Your task to perform on an android device: Open calendar and show me the third week of next month Image 0: 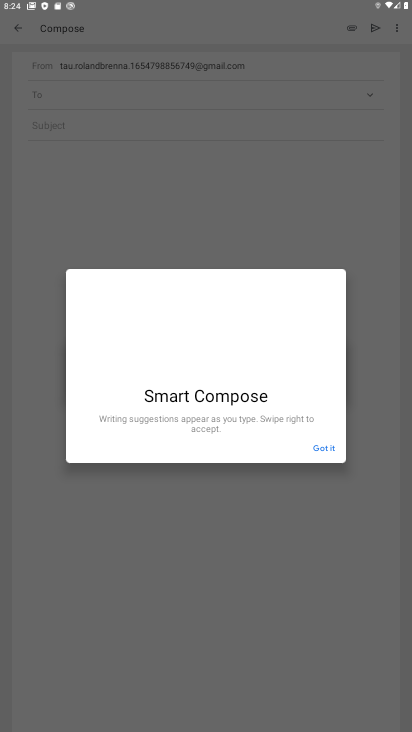
Step 0: press home button
Your task to perform on an android device: Open calendar and show me the third week of next month Image 1: 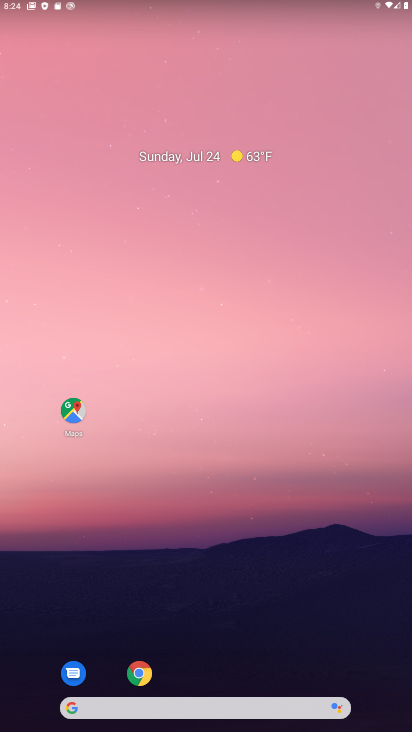
Step 1: drag from (212, 691) to (131, 204)
Your task to perform on an android device: Open calendar and show me the third week of next month Image 2: 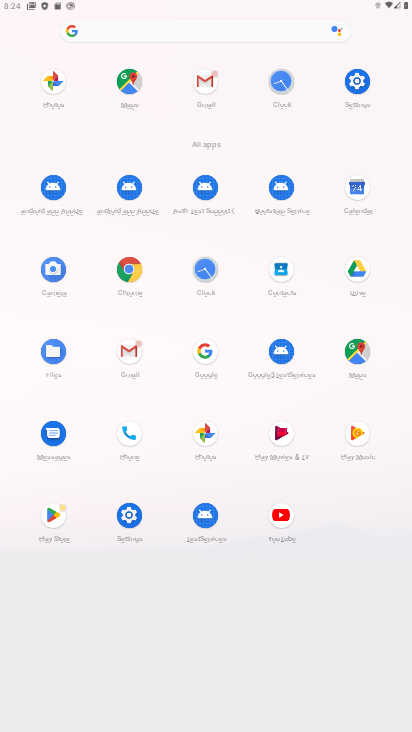
Step 2: click (356, 202)
Your task to perform on an android device: Open calendar and show me the third week of next month Image 3: 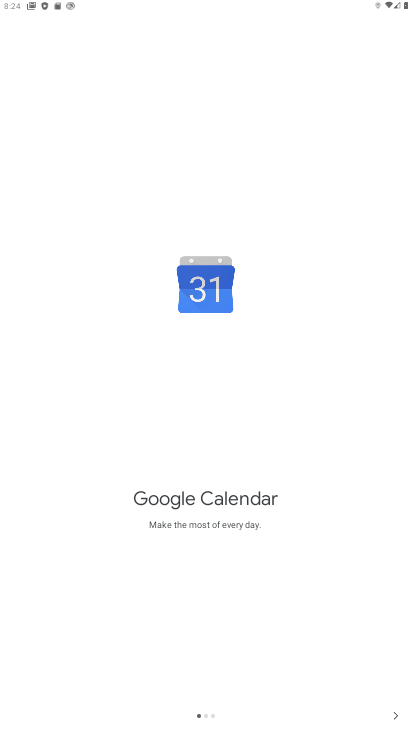
Step 3: click (390, 715)
Your task to perform on an android device: Open calendar and show me the third week of next month Image 4: 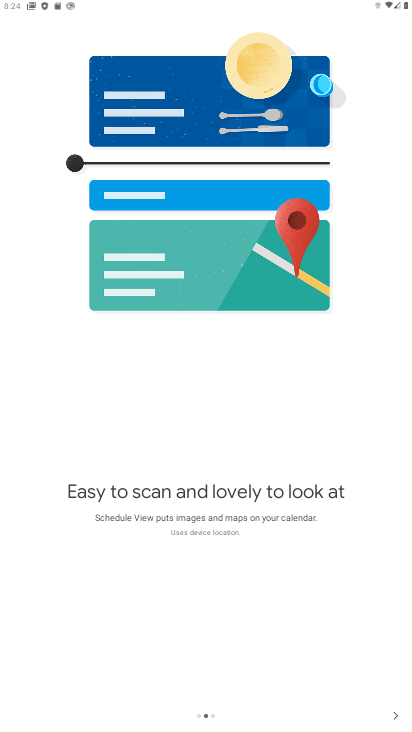
Step 4: click (389, 711)
Your task to perform on an android device: Open calendar and show me the third week of next month Image 5: 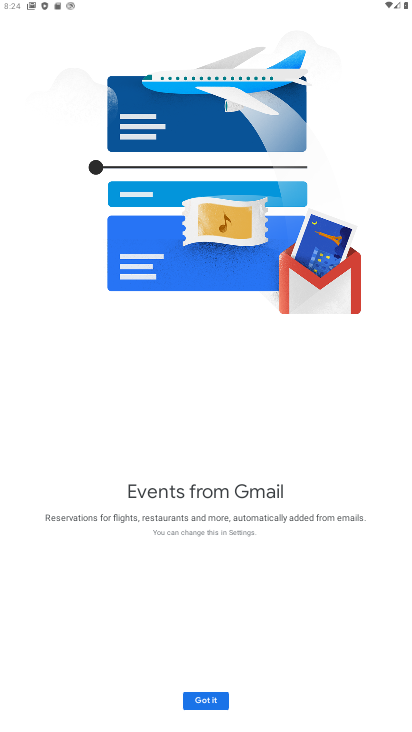
Step 5: click (238, 689)
Your task to perform on an android device: Open calendar and show me the third week of next month Image 6: 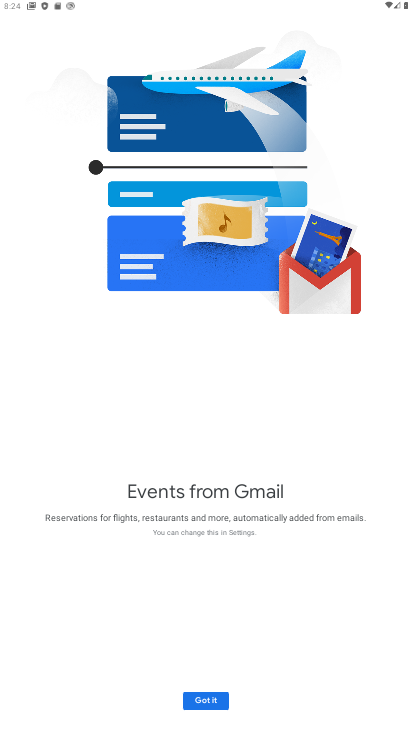
Step 6: click (217, 704)
Your task to perform on an android device: Open calendar and show me the third week of next month Image 7: 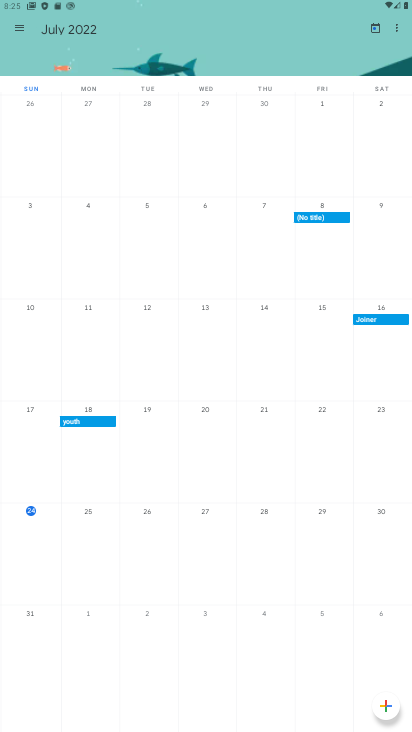
Step 7: click (17, 24)
Your task to perform on an android device: Open calendar and show me the third week of next month Image 8: 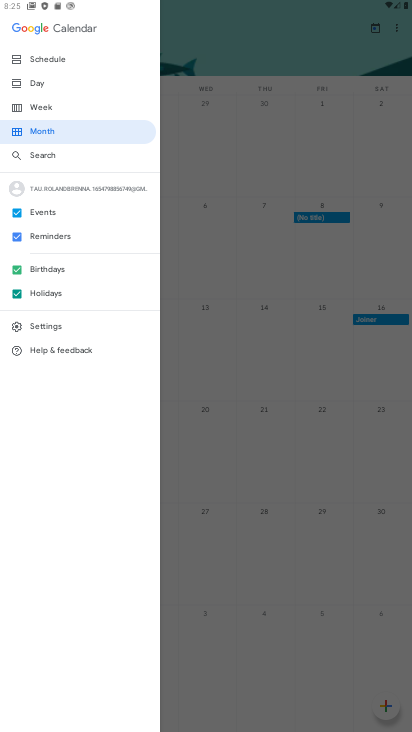
Step 8: click (43, 104)
Your task to perform on an android device: Open calendar and show me the third week of next month Image 9: 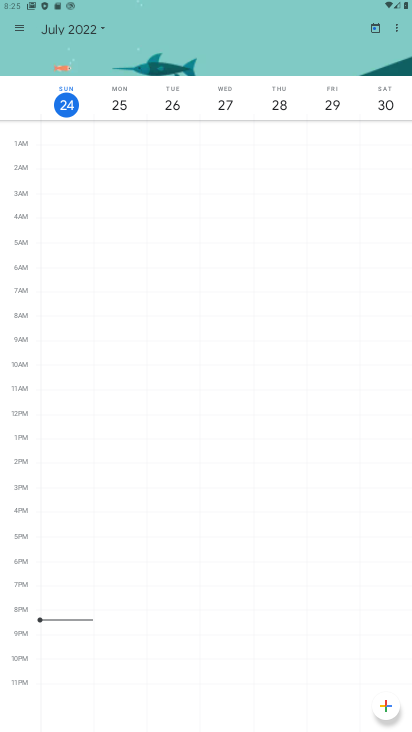
Step 9: task complete